Your task to perform on an android device: open app "Instagram" (install if not already installed) Image 0: 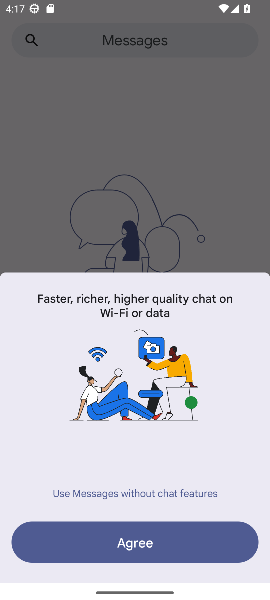
Step 0: press home button
Your task to perform on an android device: open app "Instagram" (install if not already installed) Image 1: 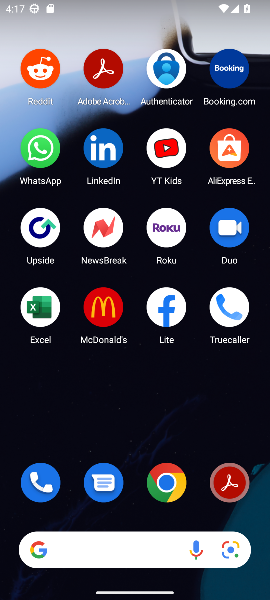
Step 1: press home button
Your task to perform on an android device: open app "Instagram" (install if not already installed) Image 2: 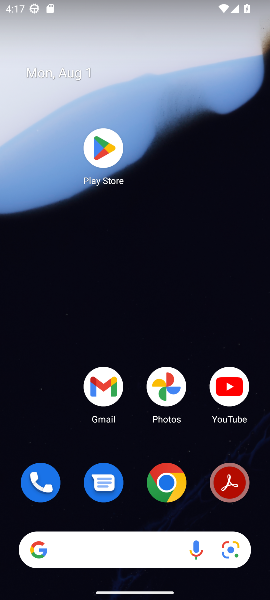
Step 2: click (99, 150)
Your task to perform on an android device: open app "Instagram" (install if not already installed) Image 3: 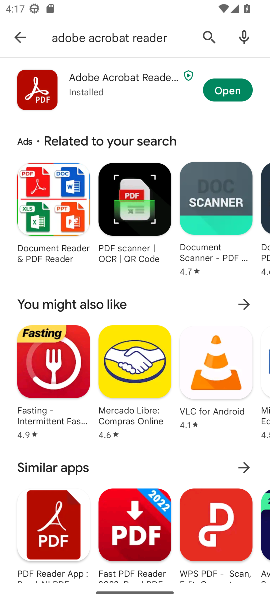
Step 3: click (203, 34)
Your task to perform on an android device: open app "Instagram" (install if not already installed) Image 4: 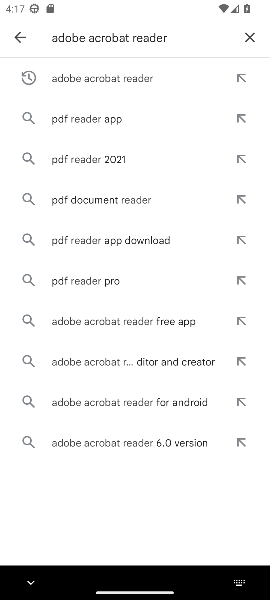
Step 4: click (249, 30)
Your task to perform on an android device: open app "Instagram" (install if not already installed) Image 5: 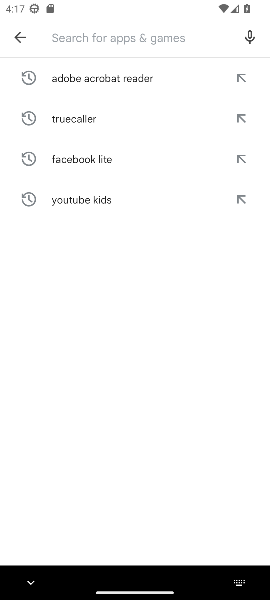
Step 5: type "Instagram"
Your task to perform on an android device: open app "Instagram" (install if not already installed) Image 6: 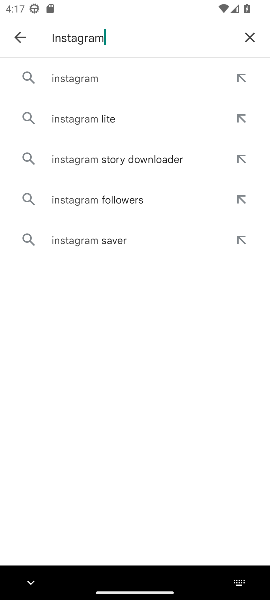
Step 6: click (88, 82)
Your task to perform on an android device: open app "Instagram" (install if not already installed) Image 7: 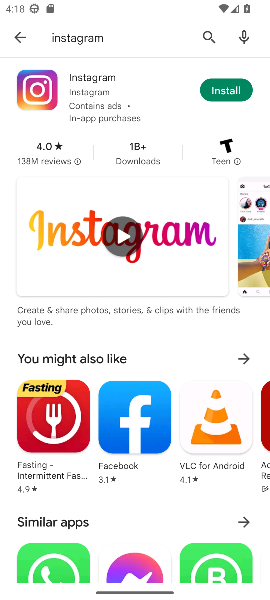
Step 7: click (225, 91)
Your task to perform on an android device: open app "Instagram" (install if not already installed) Image 8: 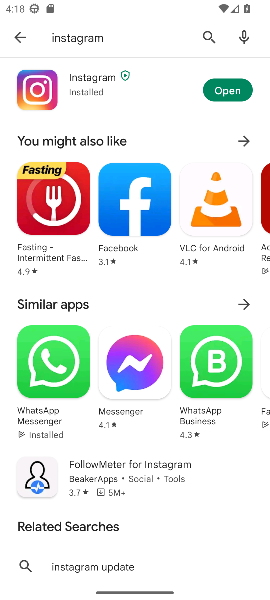
Step 8: click (226, 96)
Your task to perform on an android device: open app "Instagram" (install if not already installed) Image 9: 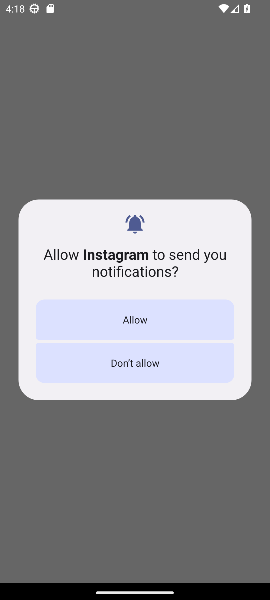
Step 9: click (196, 362)
Your task to perform on an android device: open app "Instagram" (install if not already installed) Image 10: 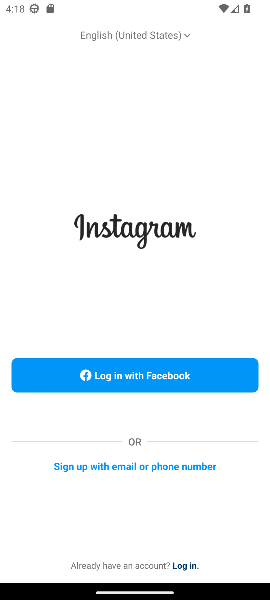
Step 10: task complete